Your task to perform on an android device: Go to wifi settings Image 0: 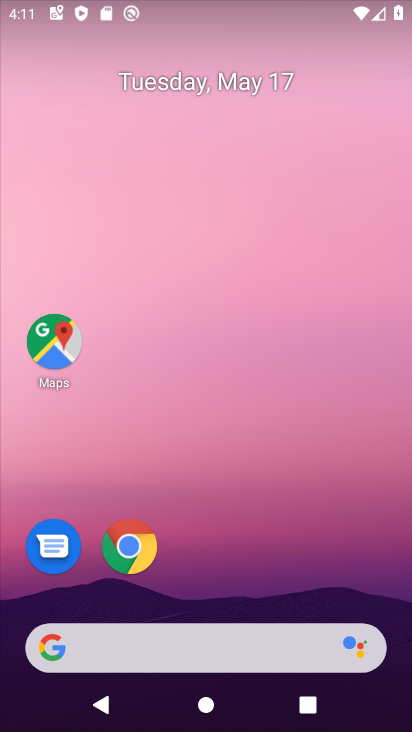
Step 0: drag from (238, 541) to (257, 118)
Your task to perform on an android device: Go to wifi settings Image 1: 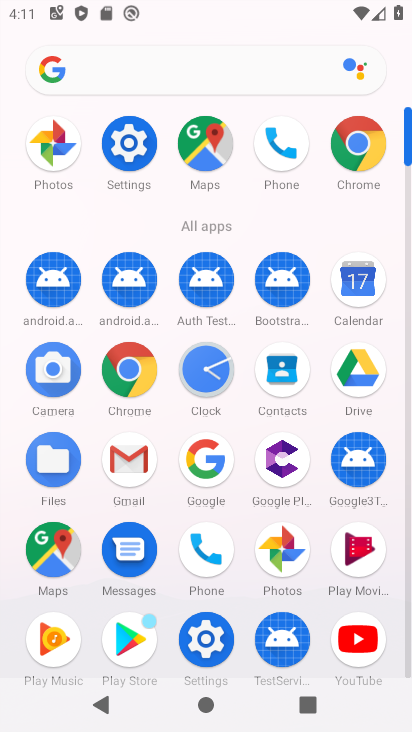
Step 1: click (140, 153)
Your task to perform on an android device: Go to wifi settings Image 2: 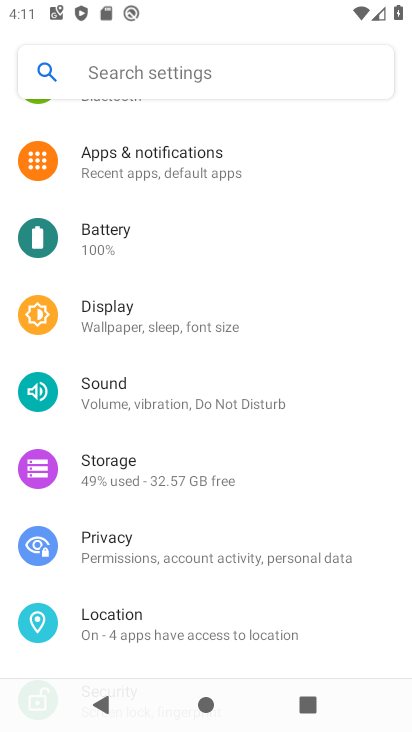
Step 2: drag from (157, 164) to (163, 600)
Your task to perform on an android device: Go to wifi settings Image 3: 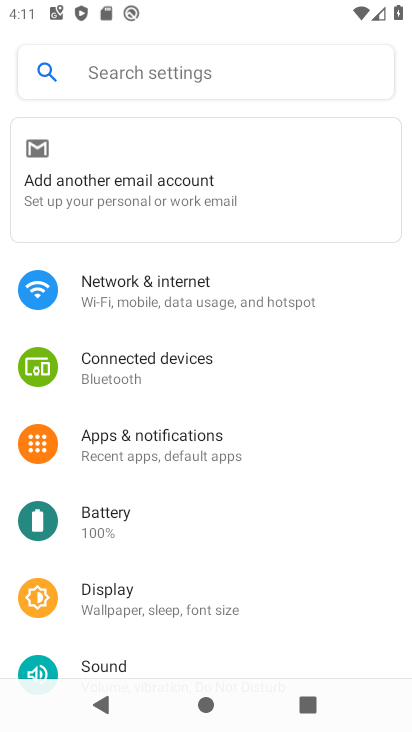
Step 3: click (200, 294)
Your task to perform on an android device: Go to wifi settings Image 4: 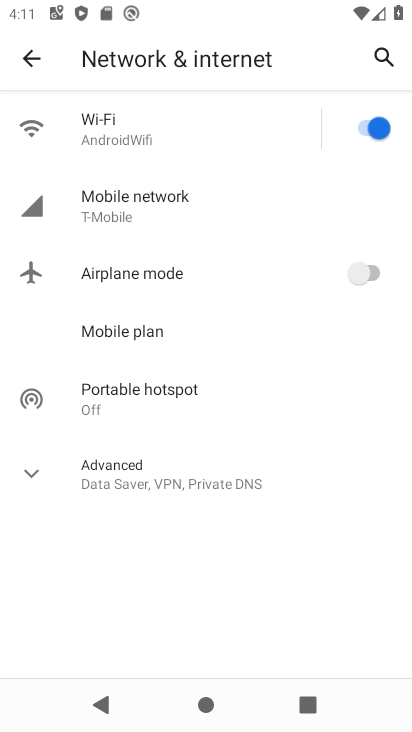
Step 4: click (112, 138)
Your task to perform on an android device: Go to wifi settings Image 5: 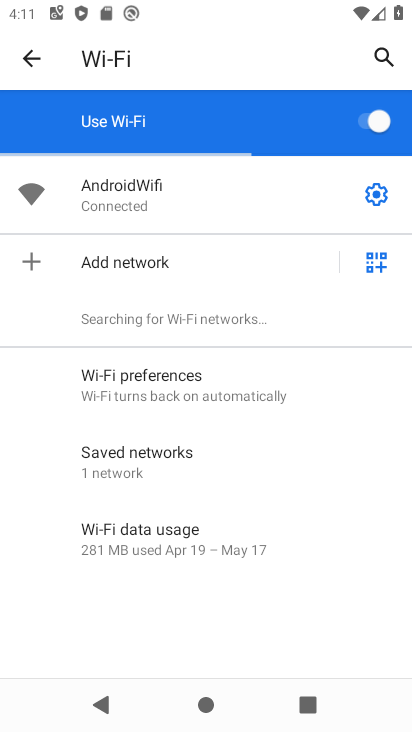
Step 5: task complete